Your task to perform on an android device: change notifications settings Image 0: 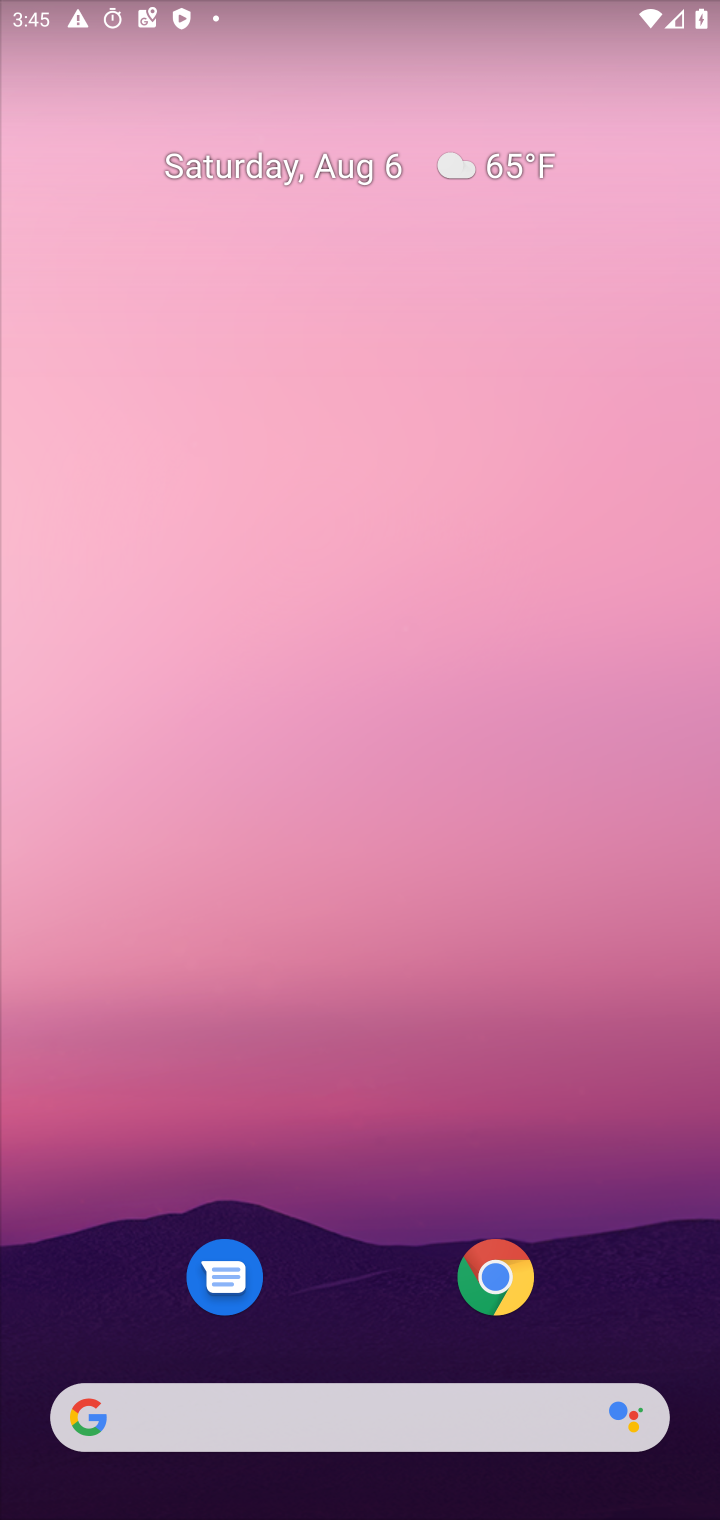
Step 0: drag from (462, 1056) to (525, 41)
Your task to perform on an android device: change notifications settings Image 1: 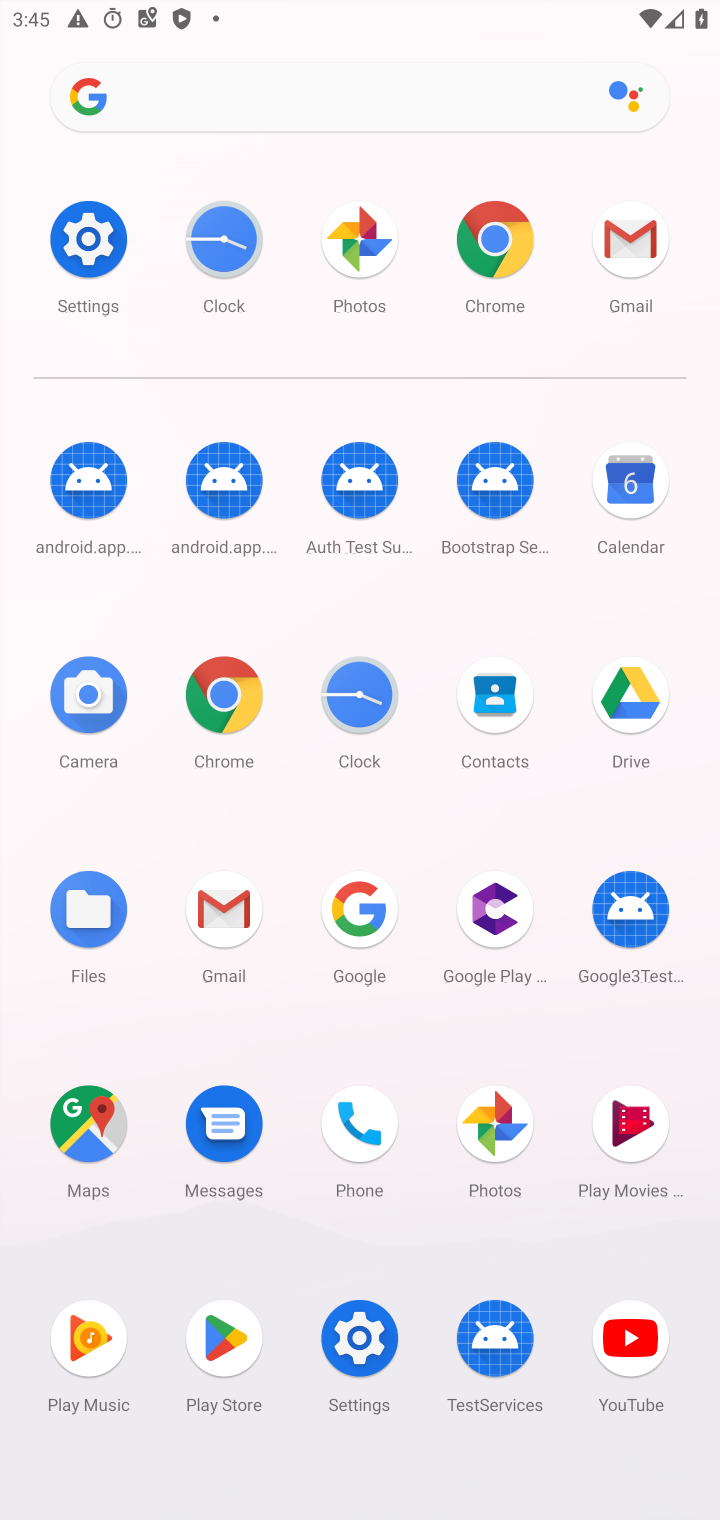
Step 1: click (88, 248)
Your task to perform on an android device: change notifications settings Image 2: 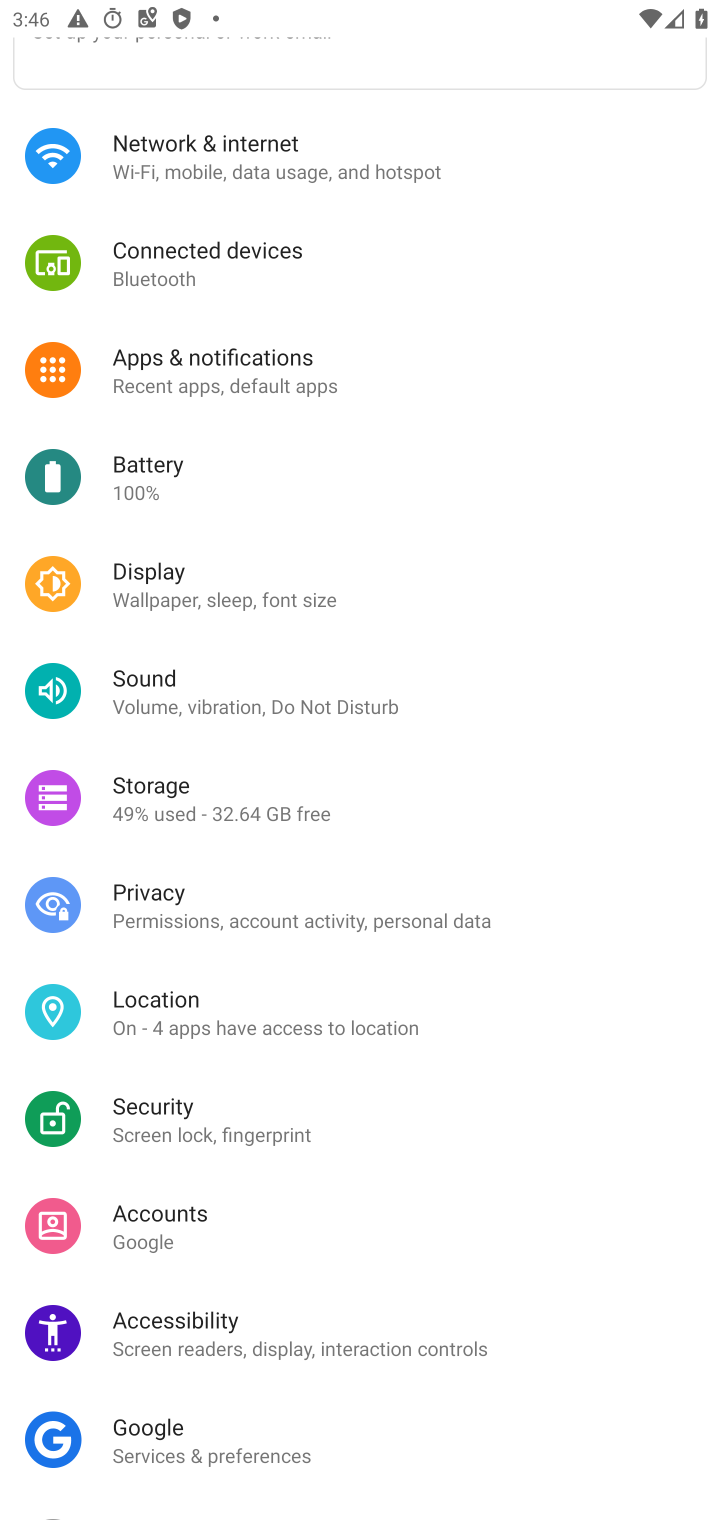
Step 2: click (267, 353)
Your task to perform on an android device: change notifications settings Image 3: 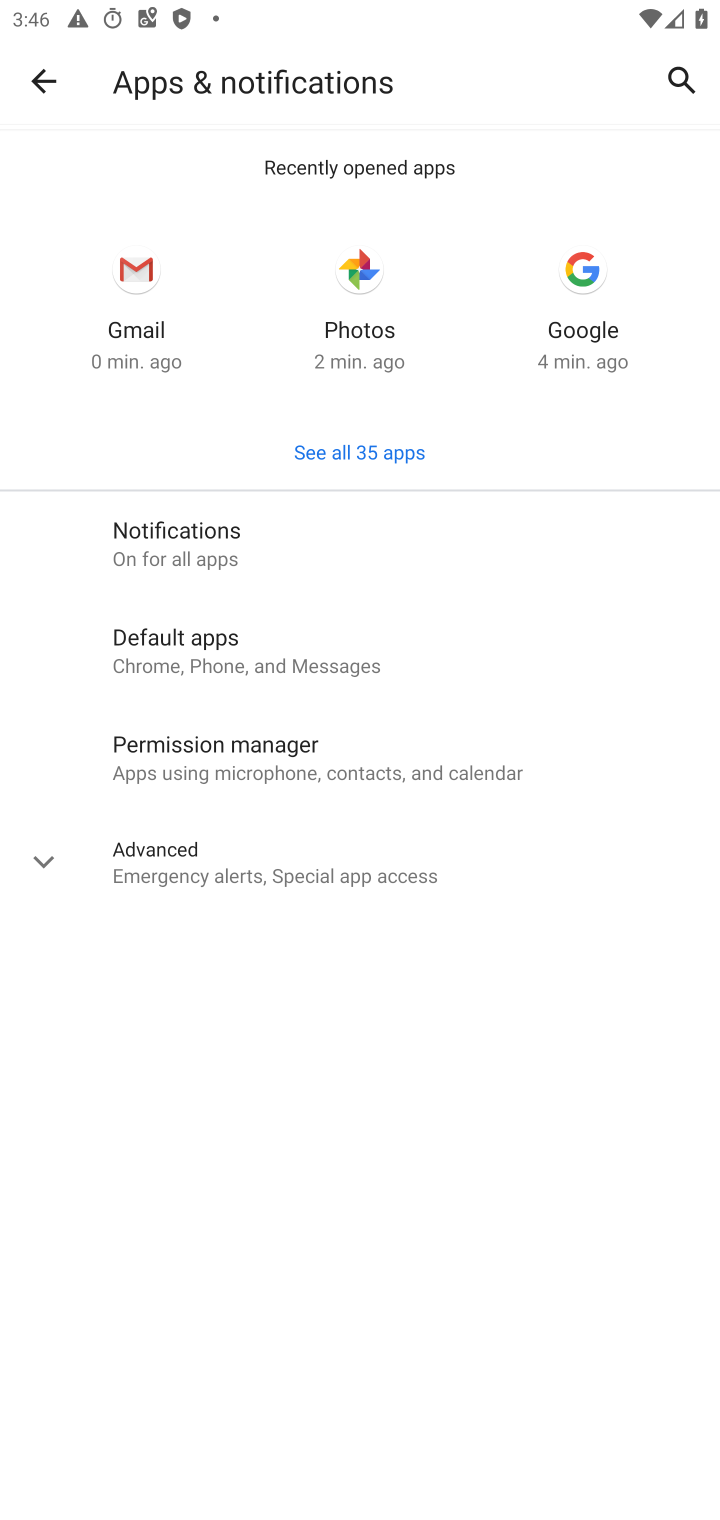
Step 3: click (204, 545)
Your task to perform on an android device: change notifications settings Image 4: 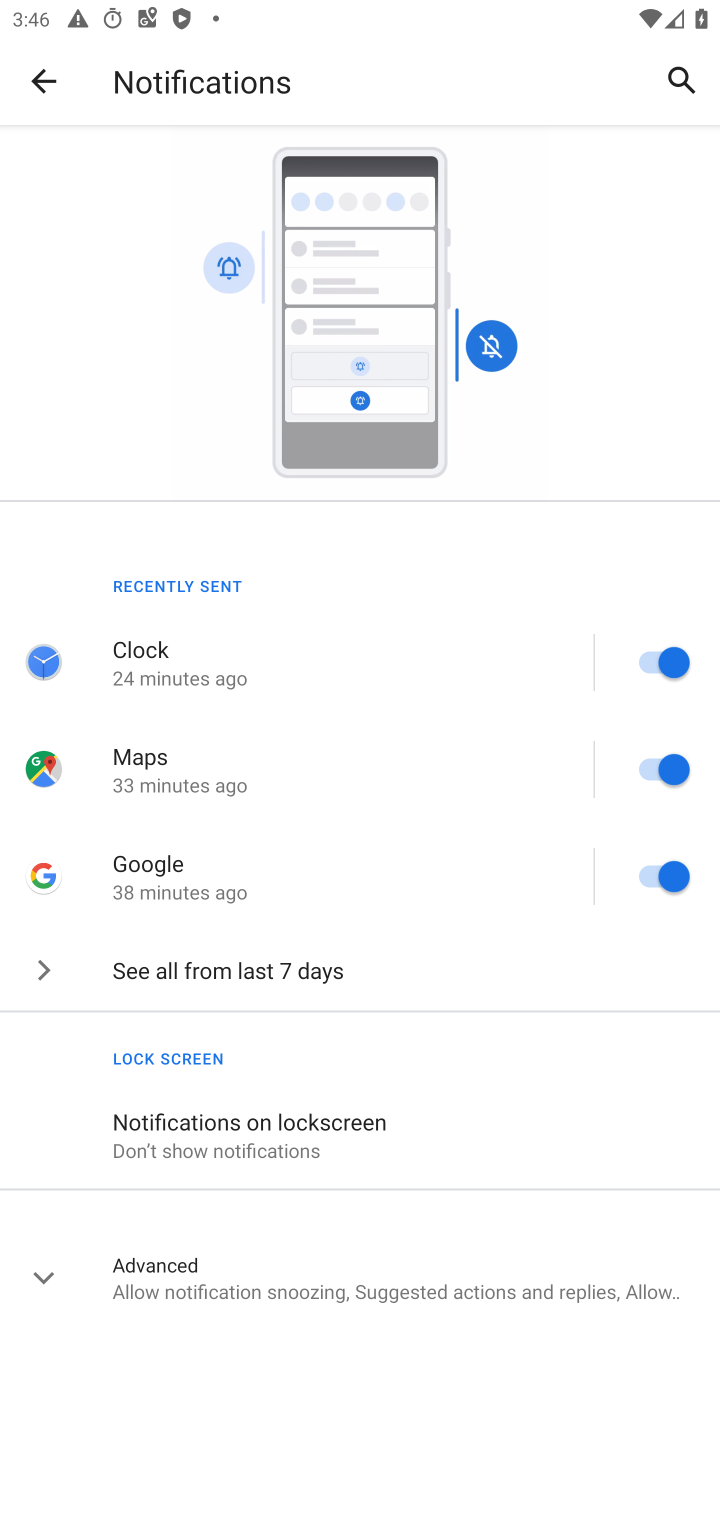
Step 4: click (651, 662)
Your task to perform on an android device: change notifications settings Image 5: 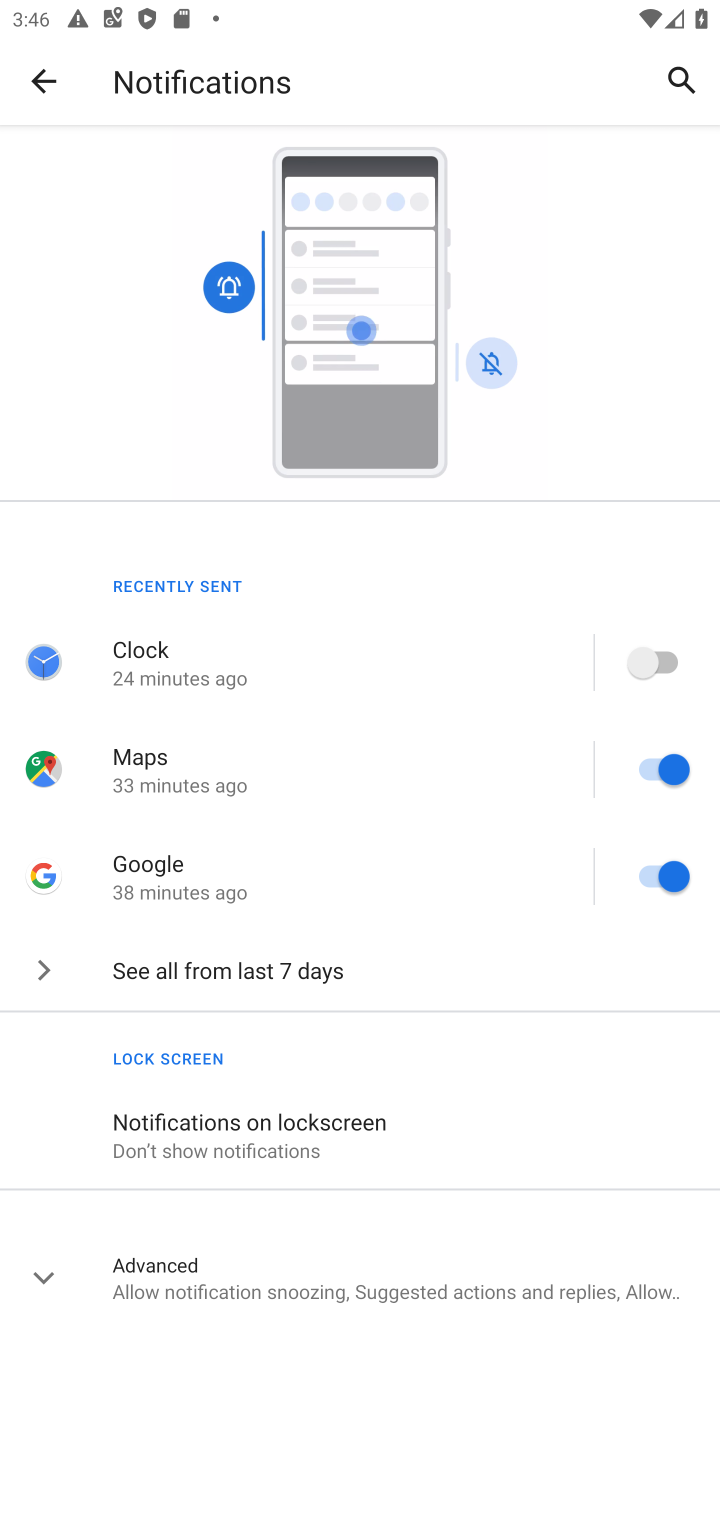
Step 5: task complete